Your task to perform on an android device: open app "Nova Launcher" Image 0: 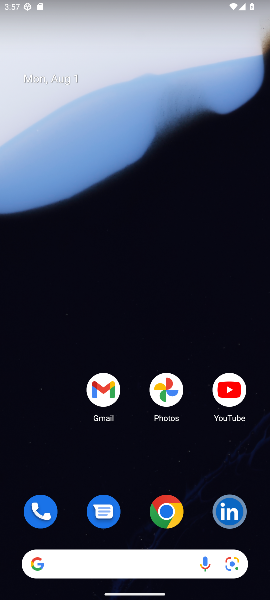
Step 0: drag from (122, 202) to (104, 16)
Your task to perform on an android device: open app "Nova Launcher" Image 1: 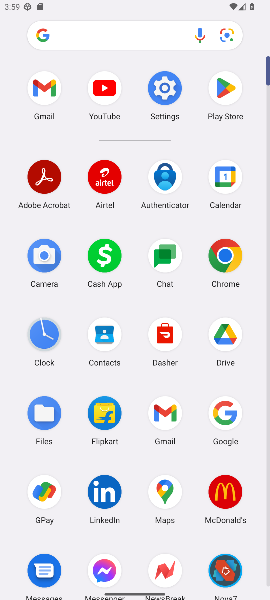
Step 1: click (229, 103)
Your task to perform on an android device: open app "Nova Launcher" Image 2: 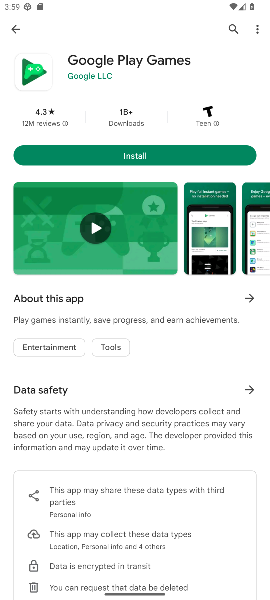
Step 2: click (222, 87)
Your task to perform on an android device: open app "Nova Launcher" Image 3: 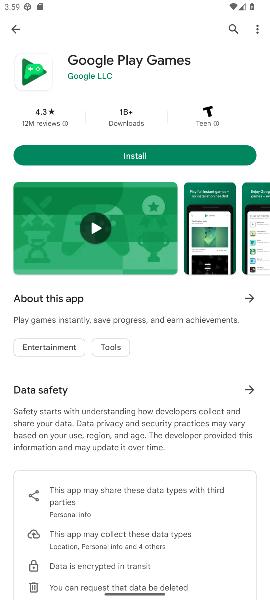
Step 3: click (16, 32)
Your task to perform on an android device: open app "Nova Launcher" Image 4: 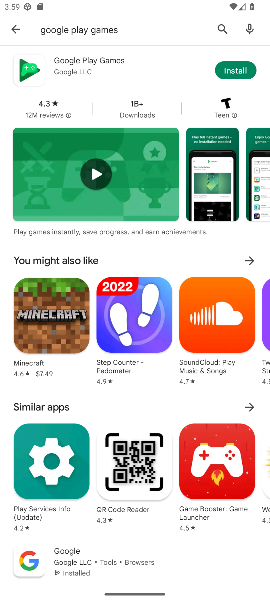
Step 4: click (16, 32)
Your task to perform on an android device: open app "Nova Launcher" Image 5: 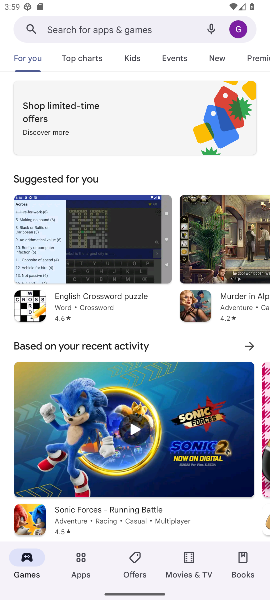
Step 5: click (72, 26)
Your task to perform on an android device: open app "Nova Launcher" Image 6: 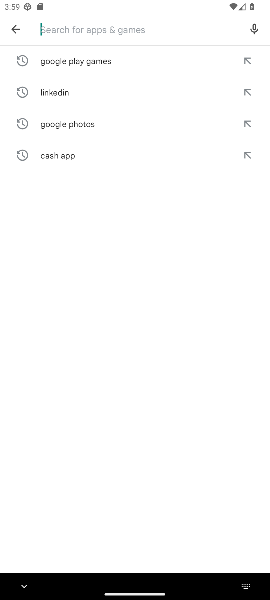
Step 6: type "Nova Launcher"
Your task to perform on an android device: open app "Nova Launcher" Image 7: 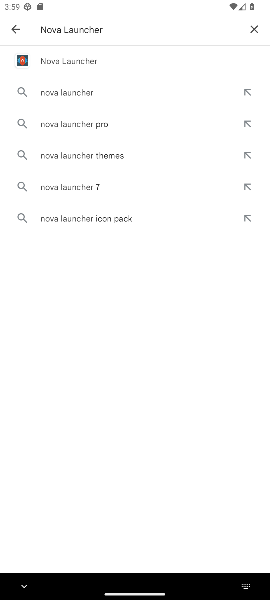
Step 7: click (89, 58)
Your task to perform on an android device: open app "Nova Launcher" Image 8: 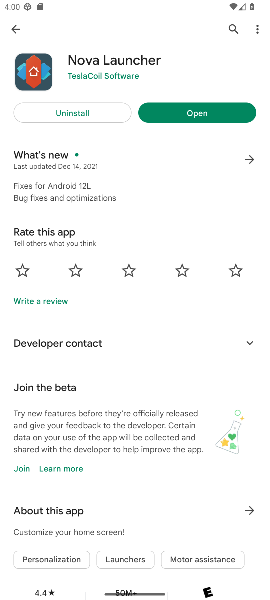
Step 8: click (197, 115)
Your task to perform on an android device: open app "Nova Launcher" Image 9: 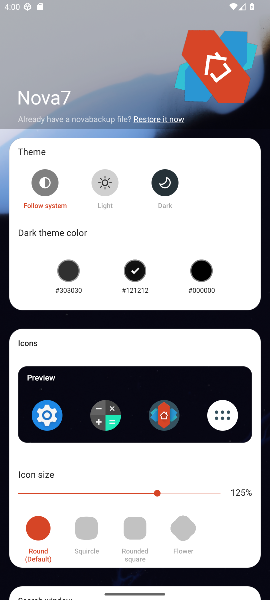
Step 9: task complete